Your task to perform on an android device: change timer sound Image 0: 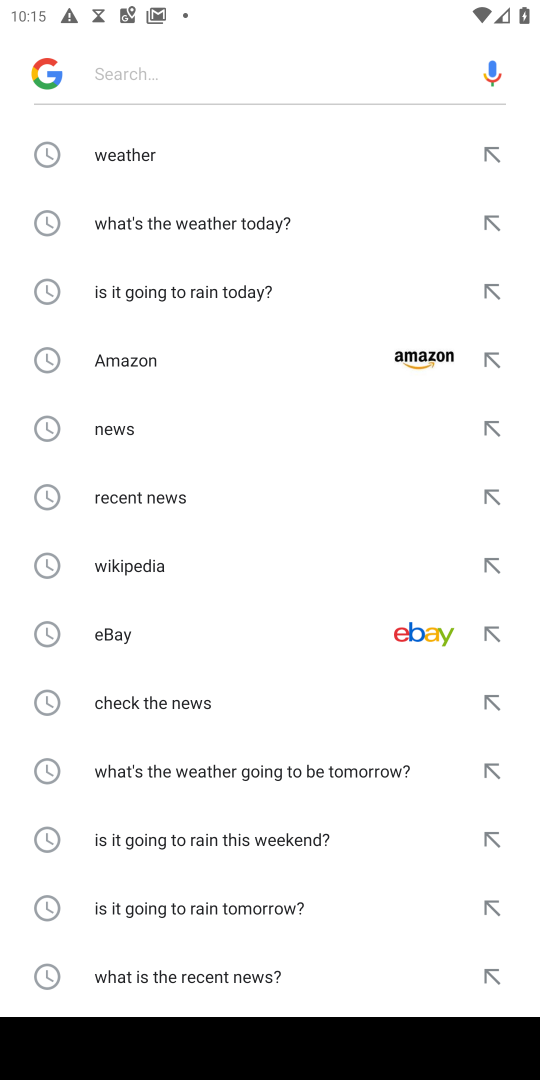
Step 0: press home button
Your task to perform on an android device: change timer sound Image 1: 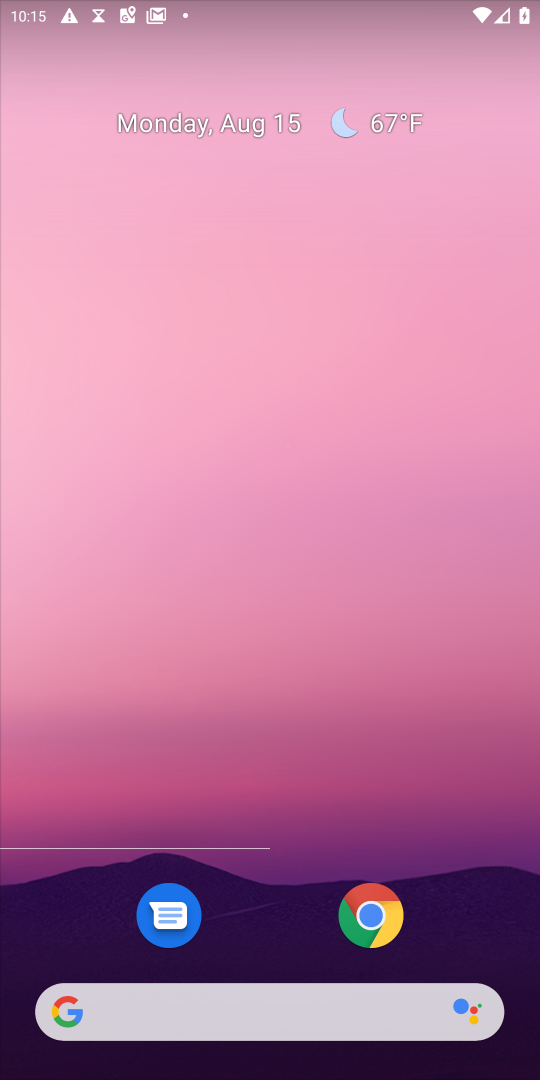
Step 1: drag from (288, 928) to (426, 280)
Your task to perform on an android device: change timer sound Image 2: 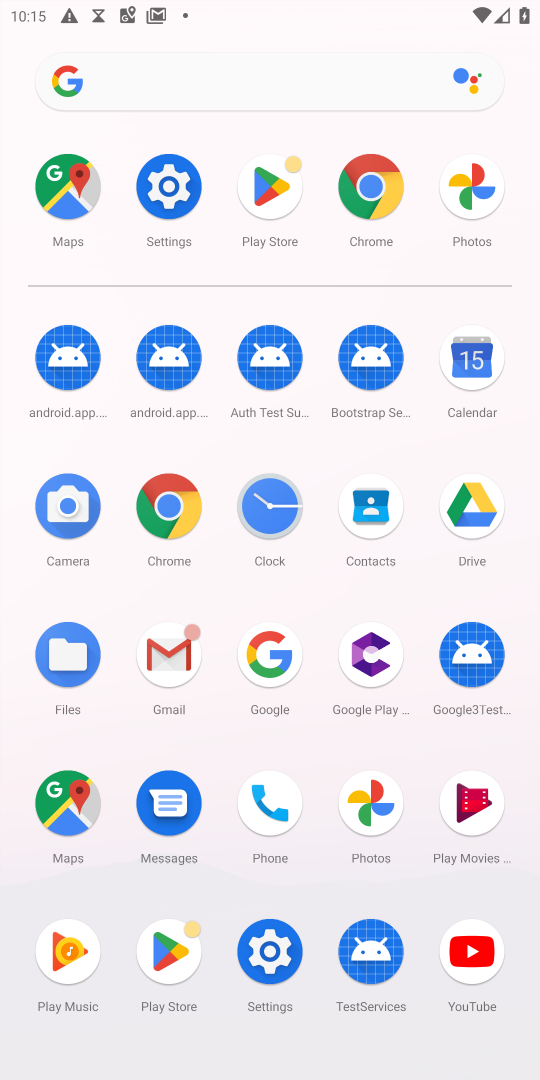
Step 2: click (263, 517)
Your task to perform on an android device: change timer sound Image 3: 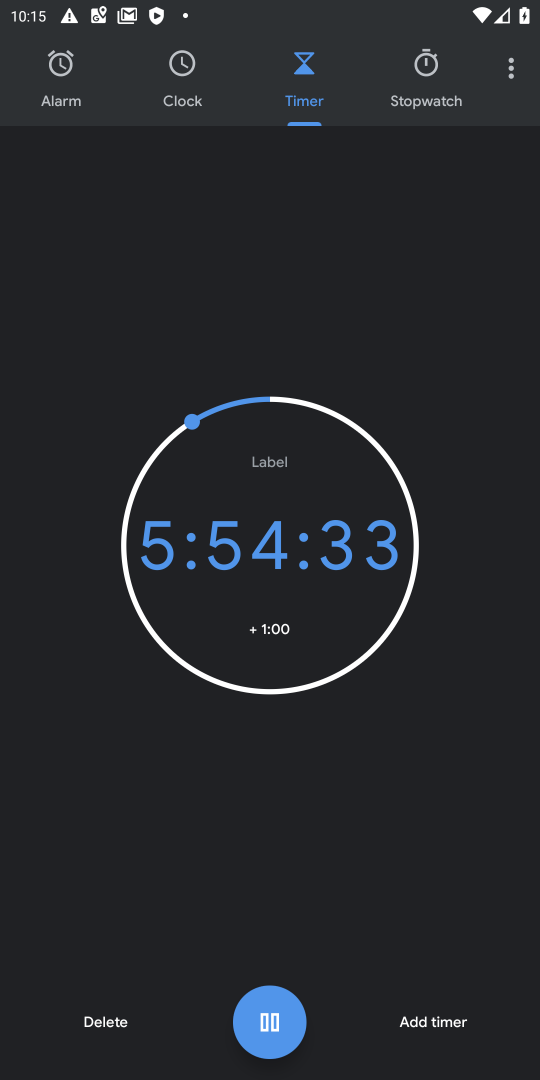
Step 3: click (512, 76)
Your task to perform on an android device: change timer sound Image 4: 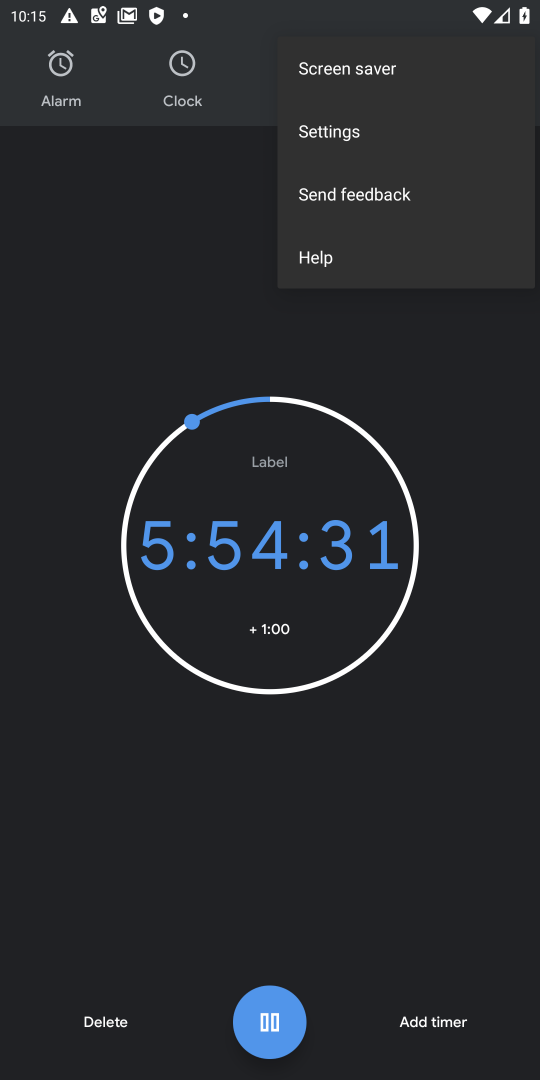
Step 4: click (338, 126)
Your task to perform on an android device: change timer sound Image 5: 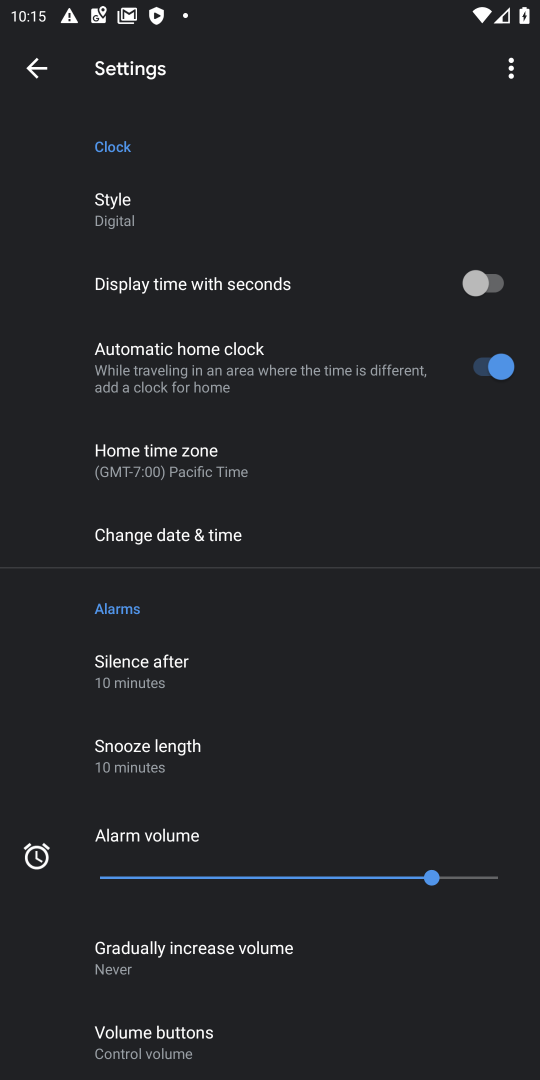
Step 5: drag from (357, 605) to (370, 85)
Your task to perform on an android device: change timer sound Image 6: 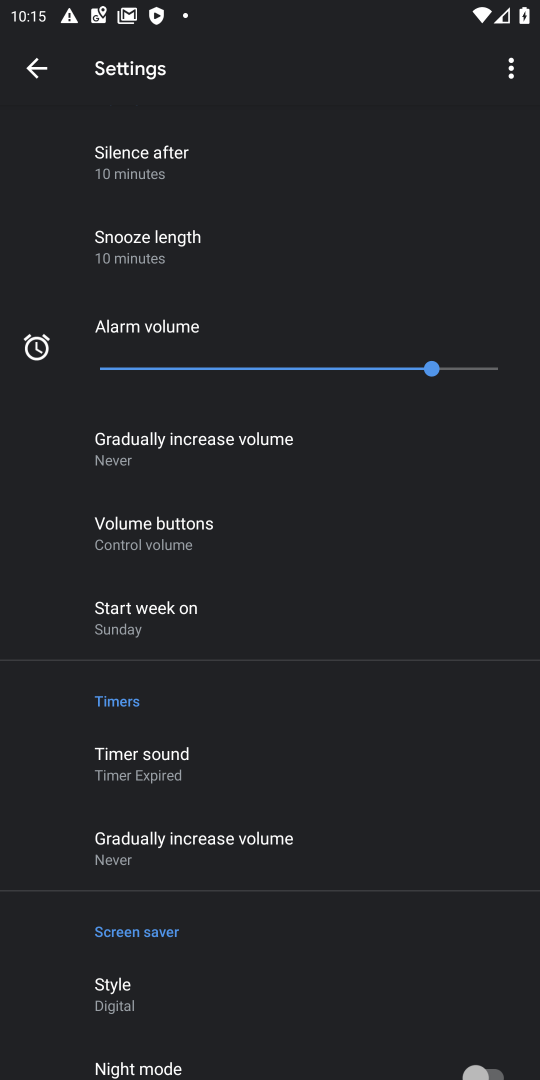
Step 6: click (155, 766)
Your task to perform on an android device: change timer sound Image 7: 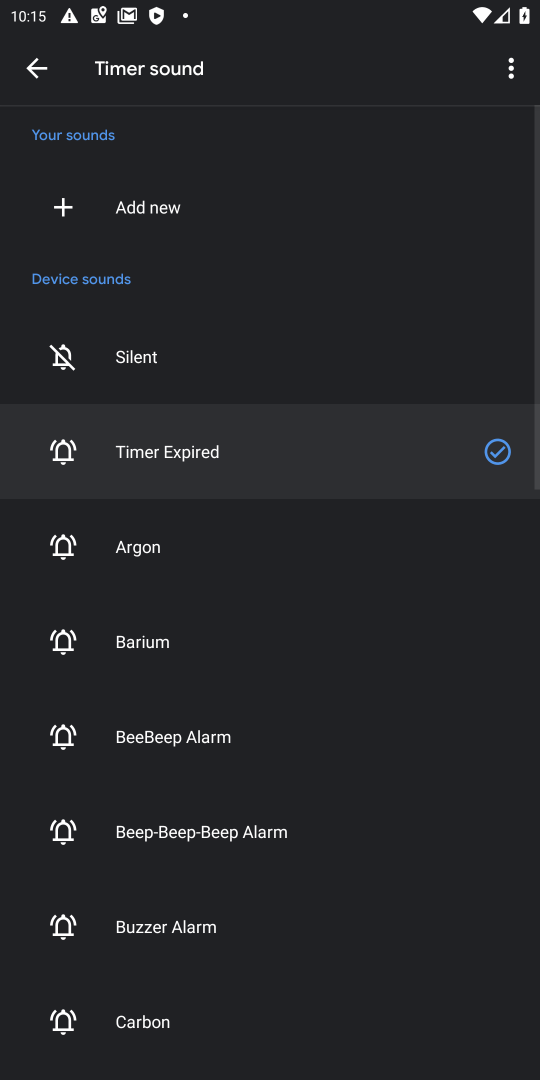
Step 7: click (175, 545)
Your task to perform on an android device: change timer sound Image 8: 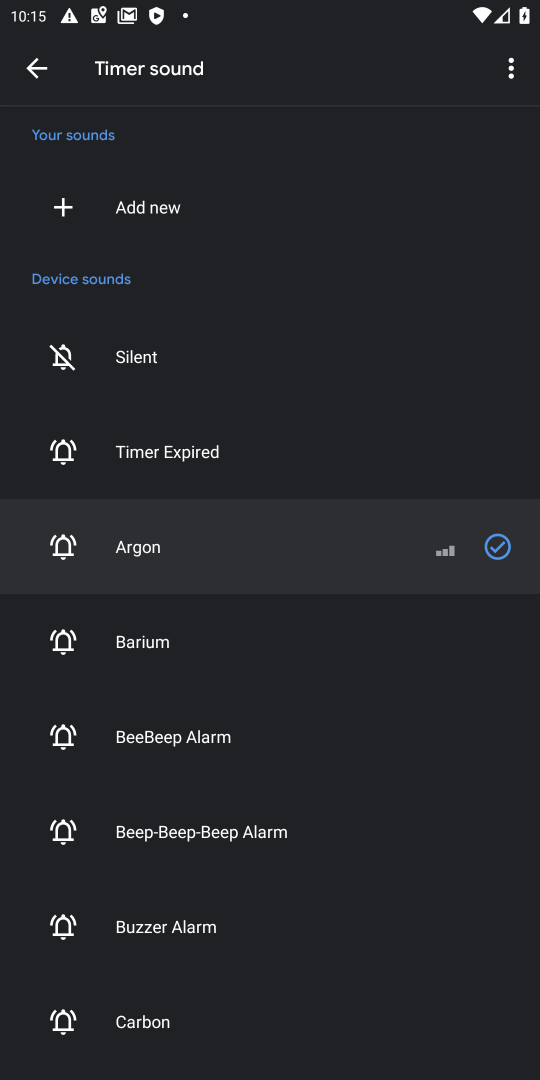
Step 8: task complete